Your task to perform on an android device: open the mobile data screen to see how much data has been used Image 0: 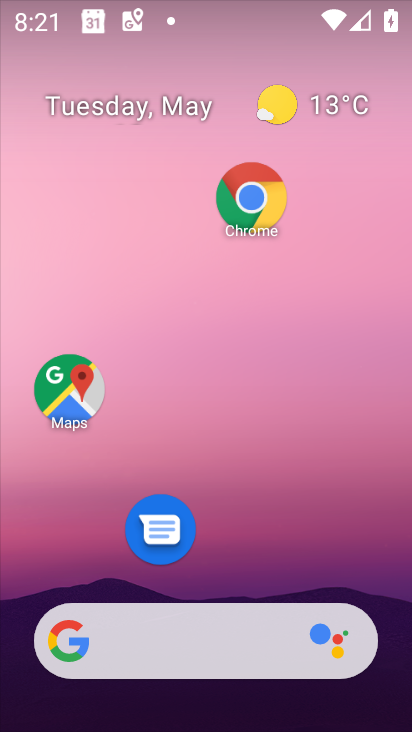
Step 0: drag from (378, 542) to (344, 164)
Your task to perform on an android device: open the mobile data screen to see how much data has been used Image 1: 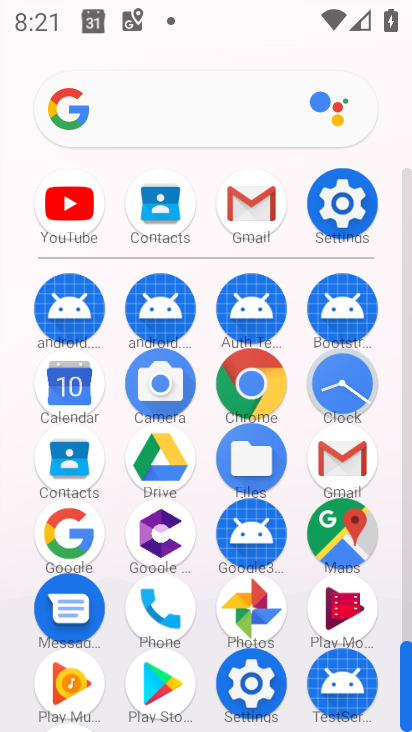
Step 1: click (322, 227)
Your task to perform on an android device: open the mobile data screen to see how much data has been used Image 2: 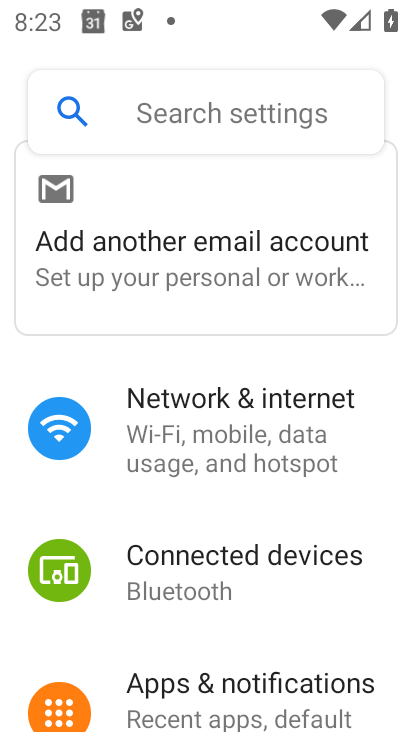
Step 2: click (175, 469)
Your task to perform on an android device: open the mobile data screen to see how much data has been used Image 3: 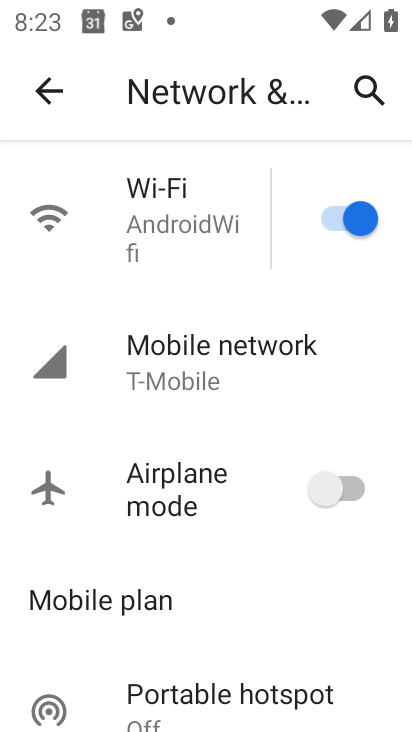
Step 3: click (273, 358)
Your task to perform on an android device: open the mobile data screen to see how much data has been used Image 4: 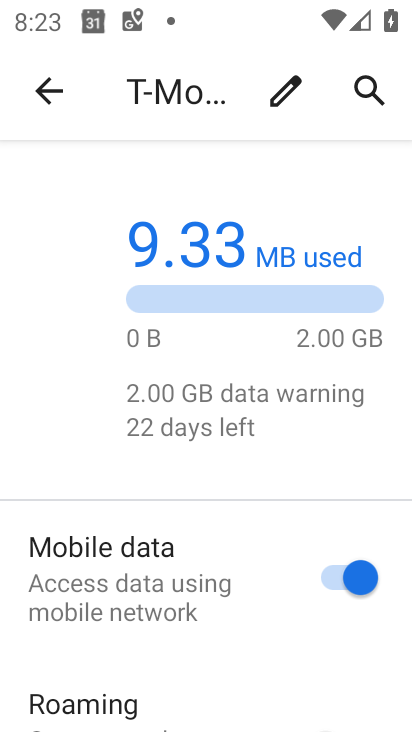
Step 4: task complete